Your task to perform on an android device: uninstall "Pinterest" Image 0: 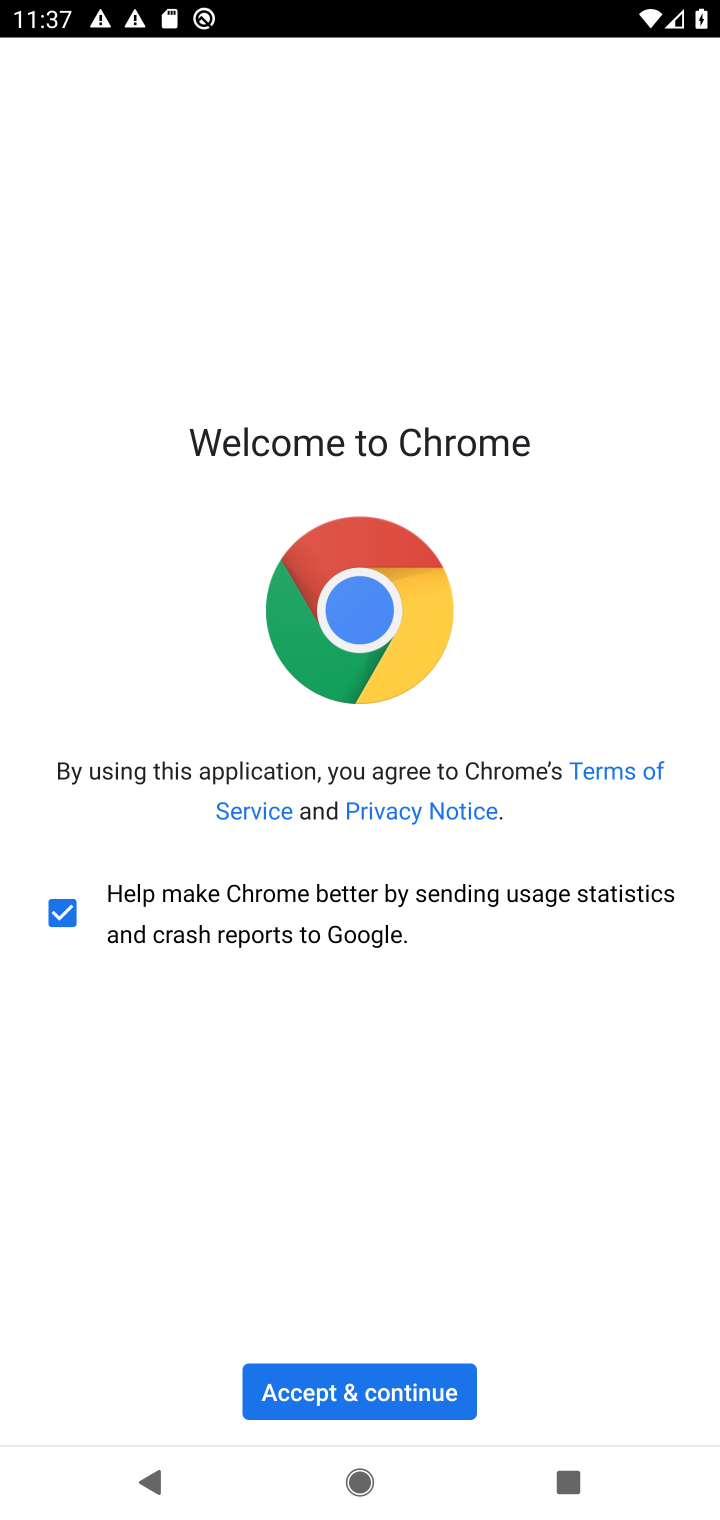
Step 0: press home button
Your task to perform on an android device: uninstall "Pinterest" Image 1: 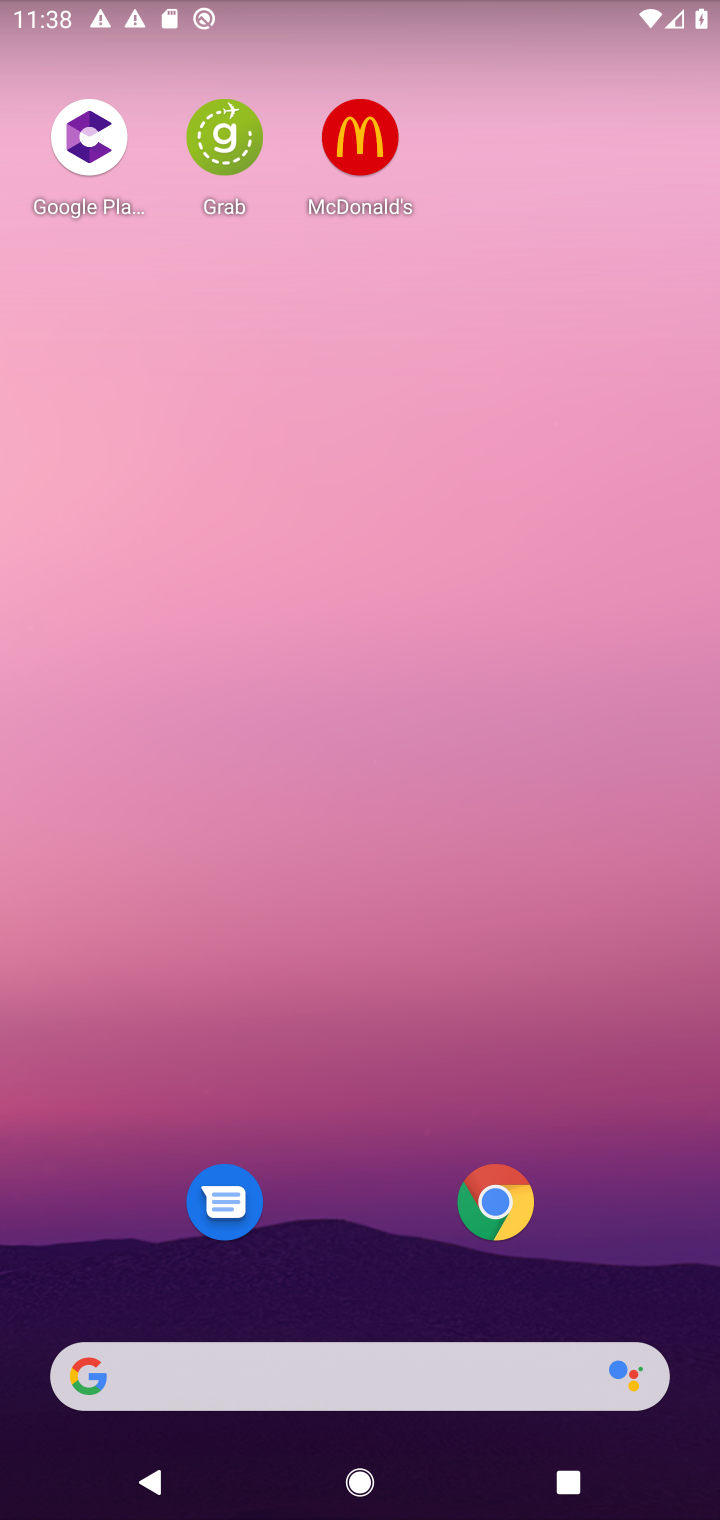
Step 1: drag from (393, 1320) to (267, 220)
Your task to perform on an android device: uninstall "Pinterest" Image 2: 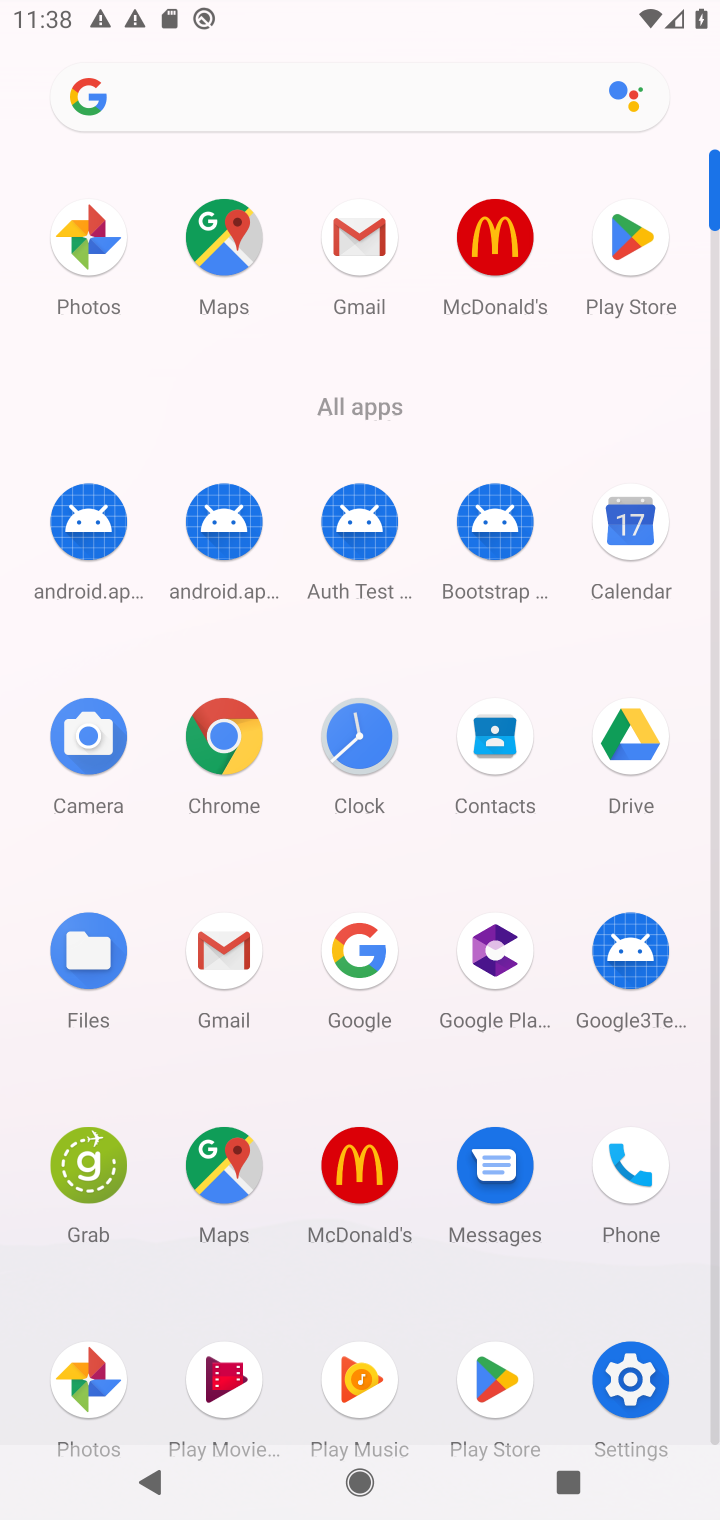
Step 2: click (459, 1359)
Your task to perform on an android device: uninstall "Pinterest" Image 3: 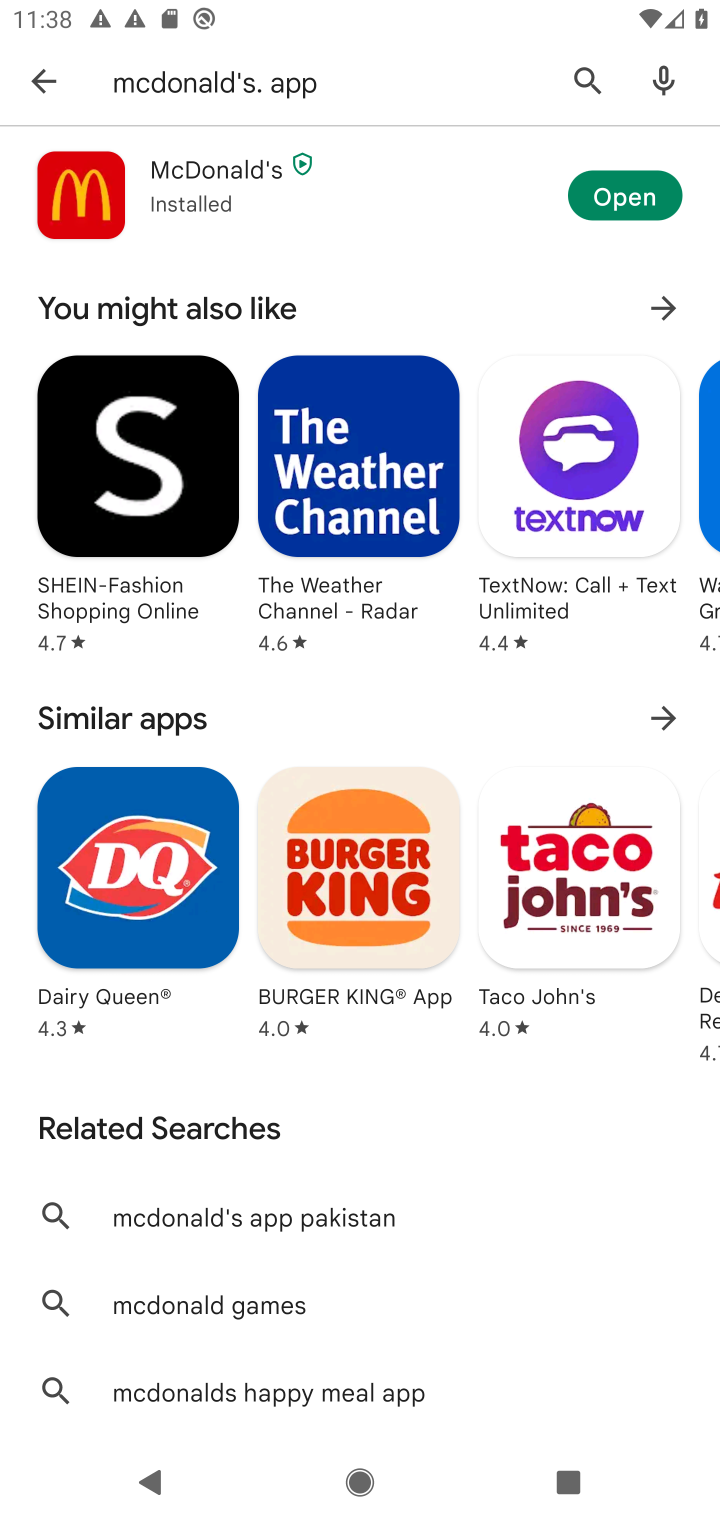
Step 3: click (53, 73)
Your task to perform on an android device: uninstall "Pinterest" Image 4: 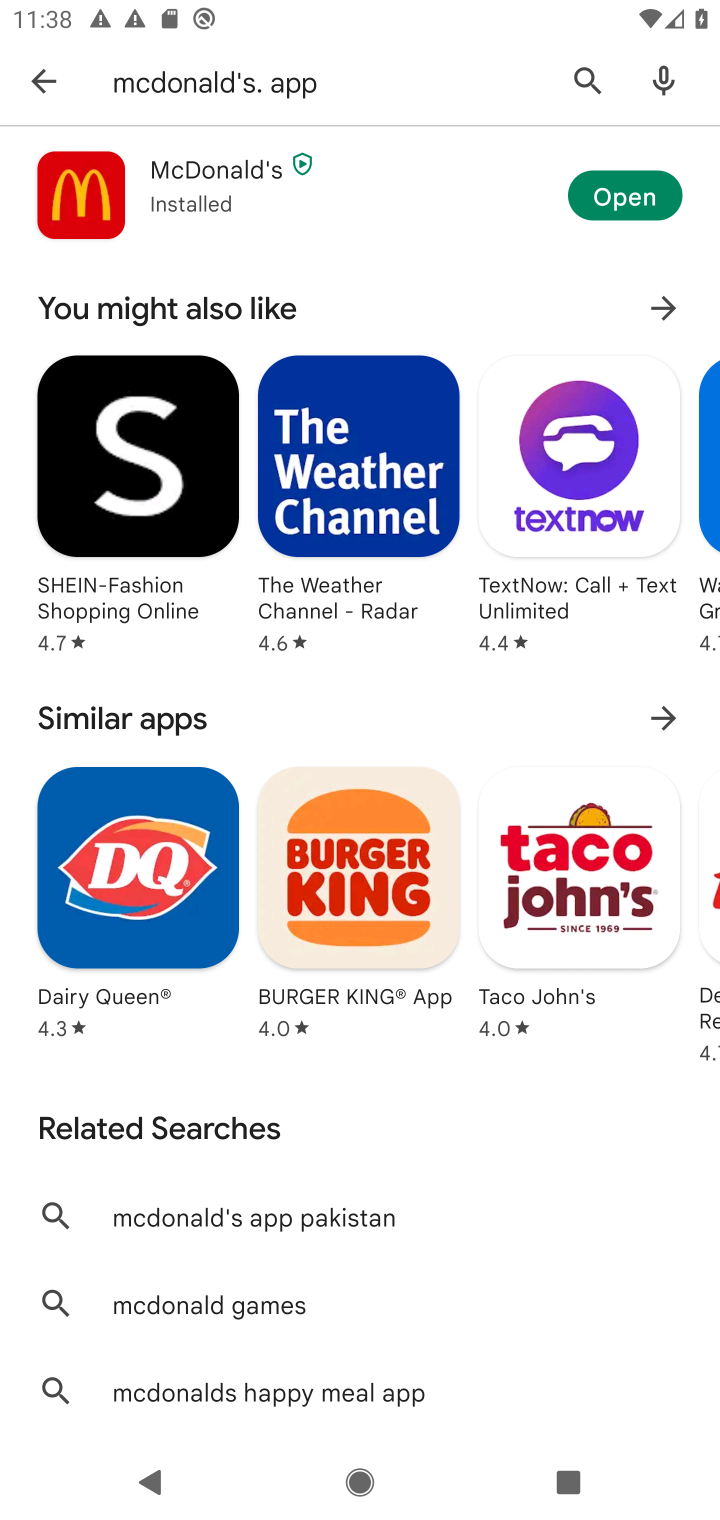
Step 4: click (23, 90)
Your task to perform on an android device: uninstall "Pinterest" Image 5: 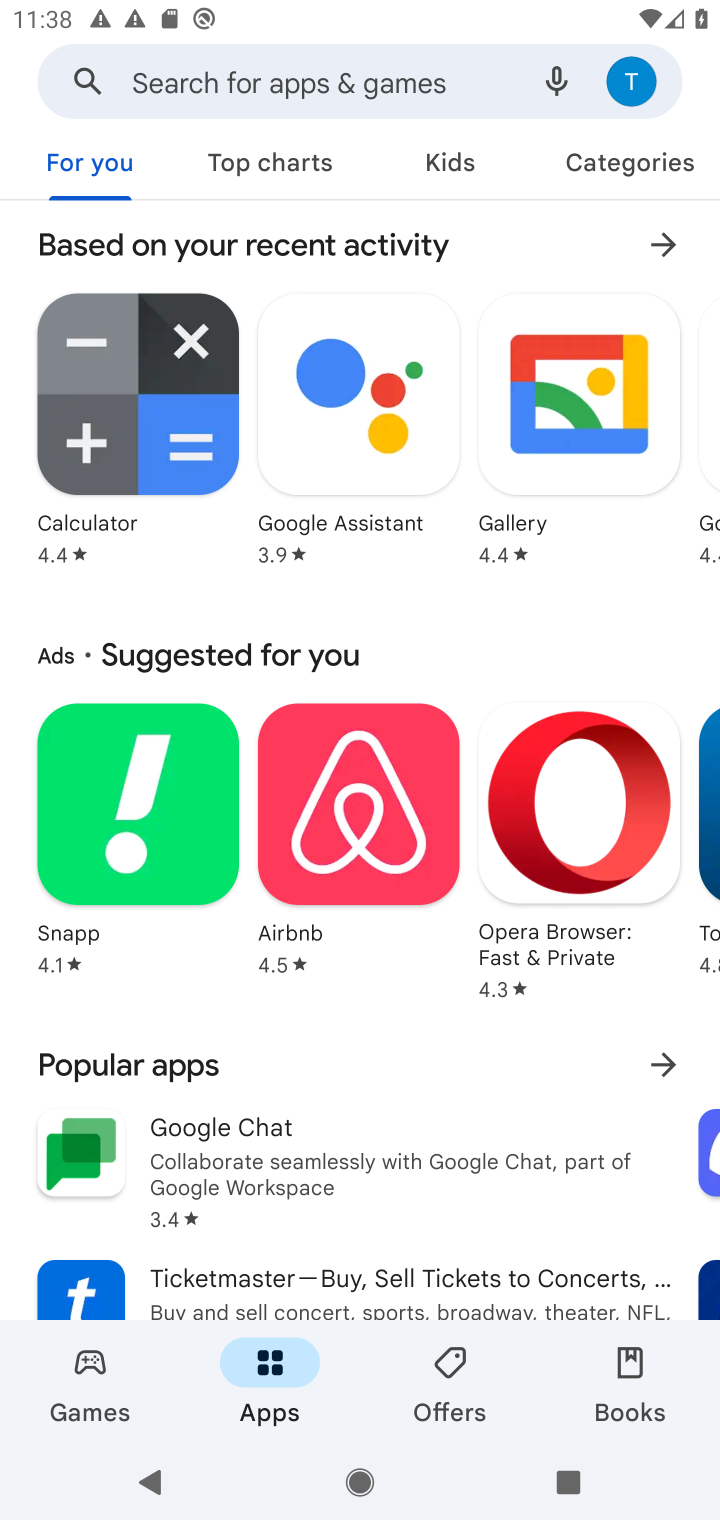
Step 5: click (83, 90)
Your task to perform on an android device: uninstall "Pinterest" Image 6: 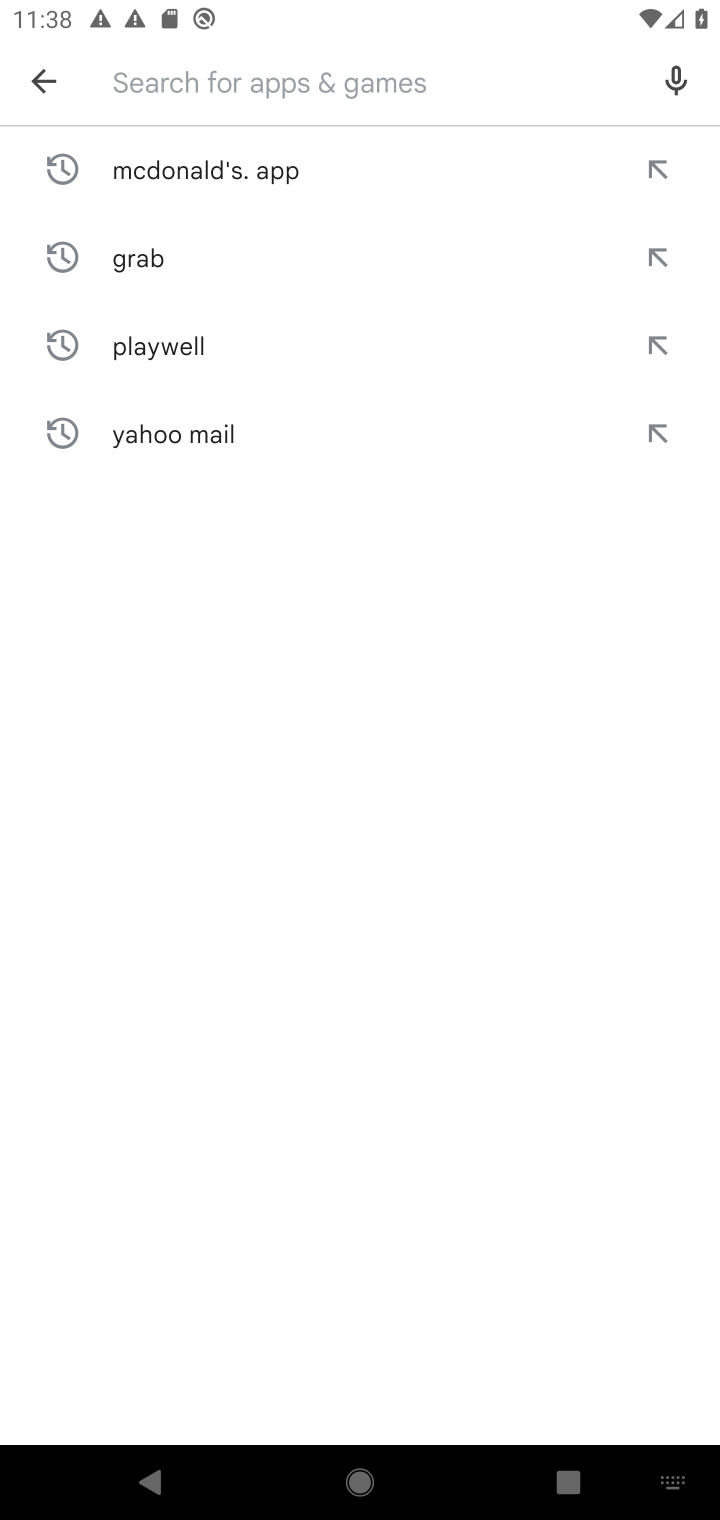
Step 6: type "Pinterest"
Your task to perform on an android device: uninstall "Pinterest" Image 7: 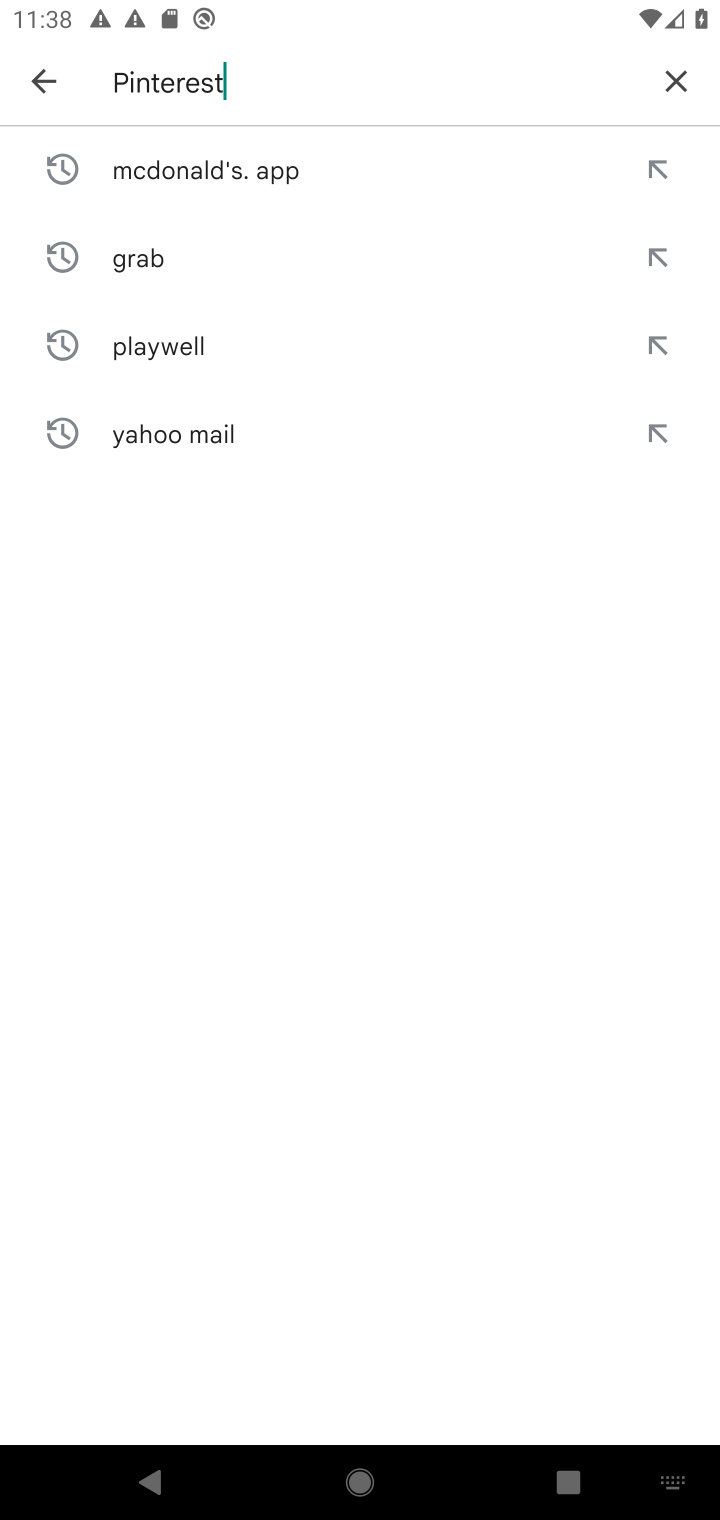
Step 7: type ""
Your task to perform on an android device: uninstall "Pinterest" Image 8: 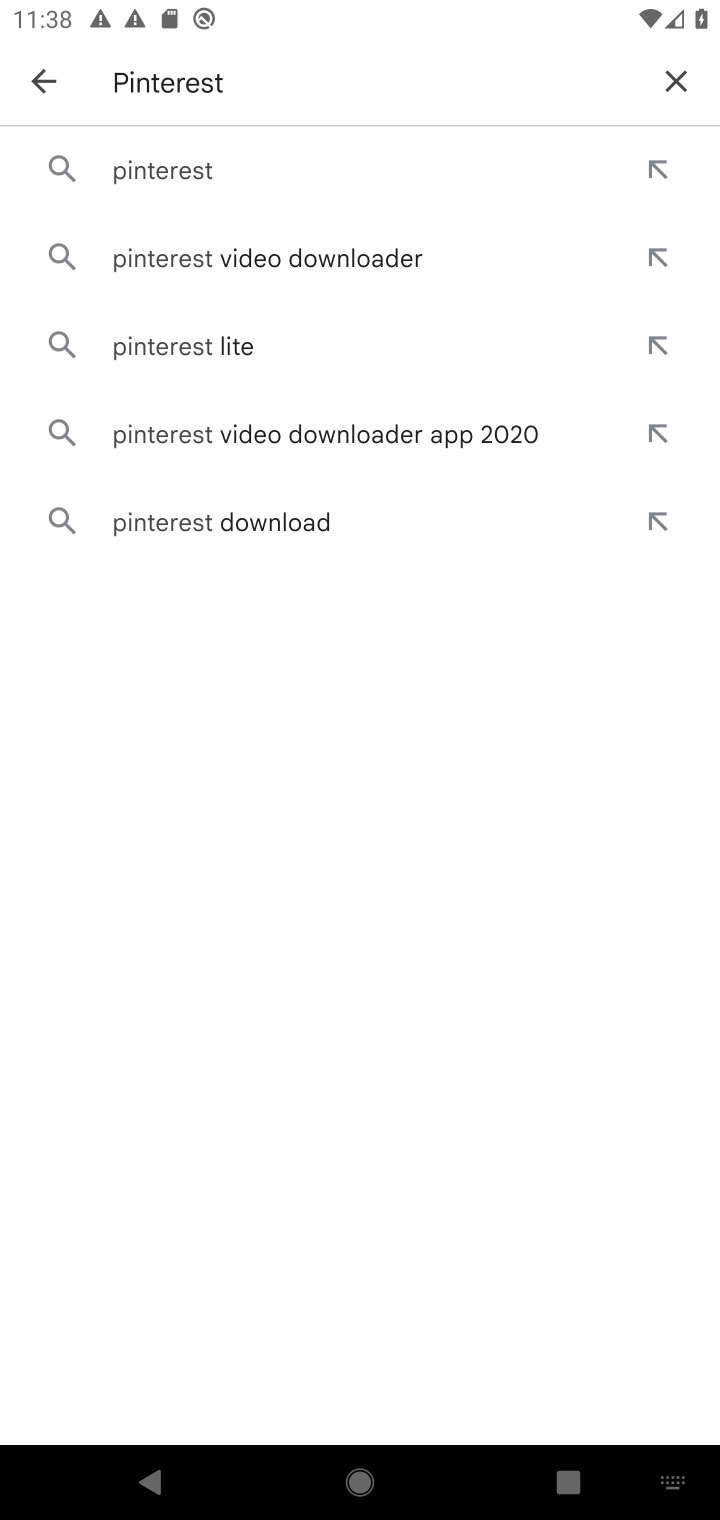
Step 8: click (168, 164)
Your task to perform on an android device: uninstall "Pinterest" Image 9: 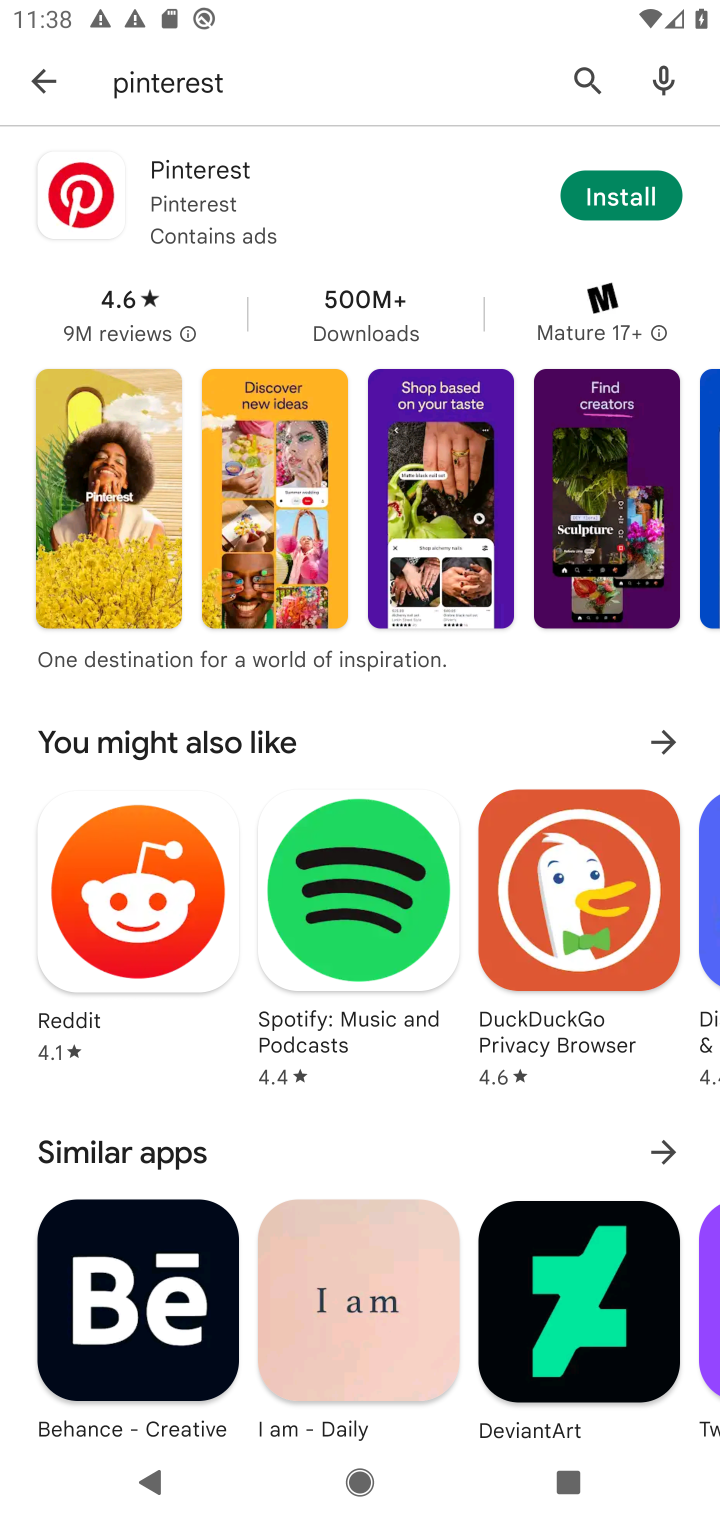
Step 9: click (188, 206)
Your task to perform on an android device: uninstall "Pinterest" Image 10: 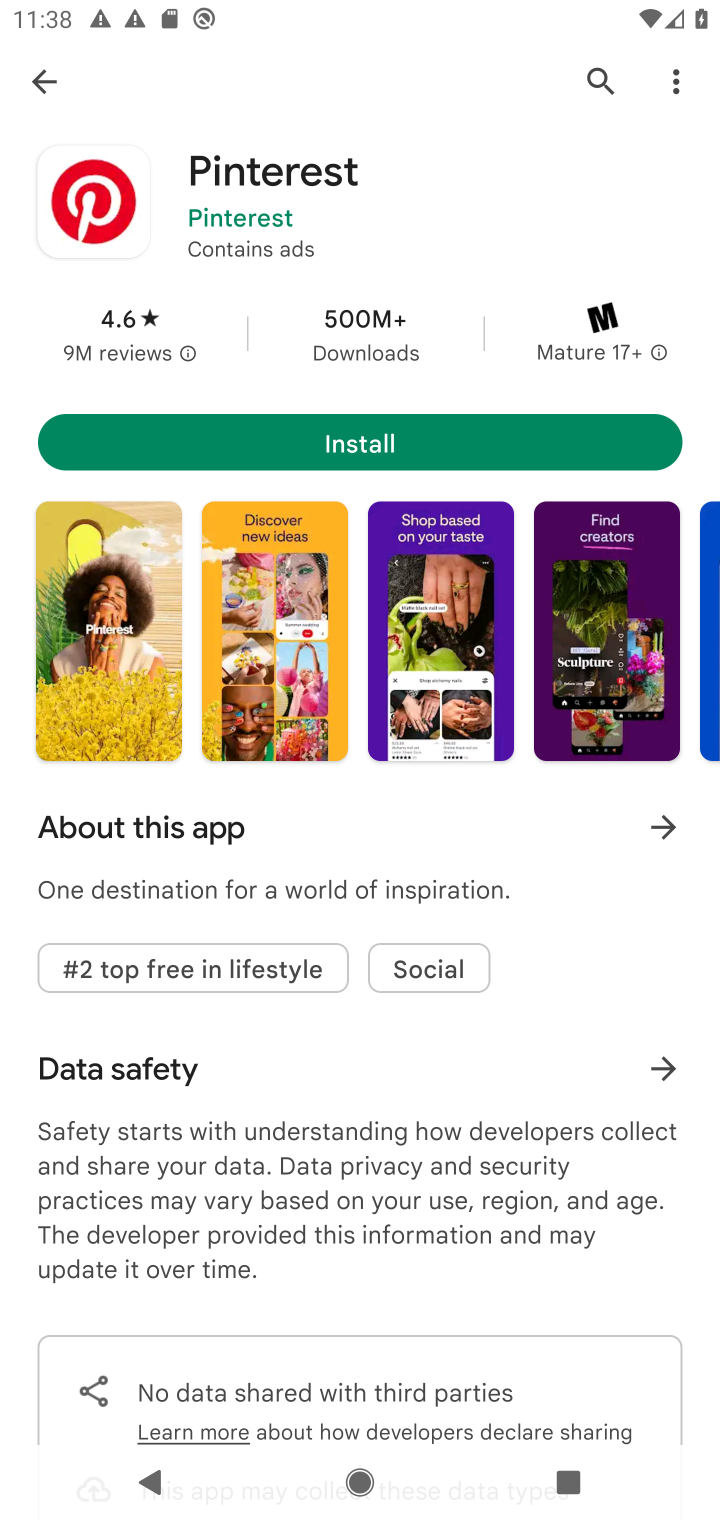
Step 10: task complete